Your task to perform on an android device: Open Amazon Image 0: 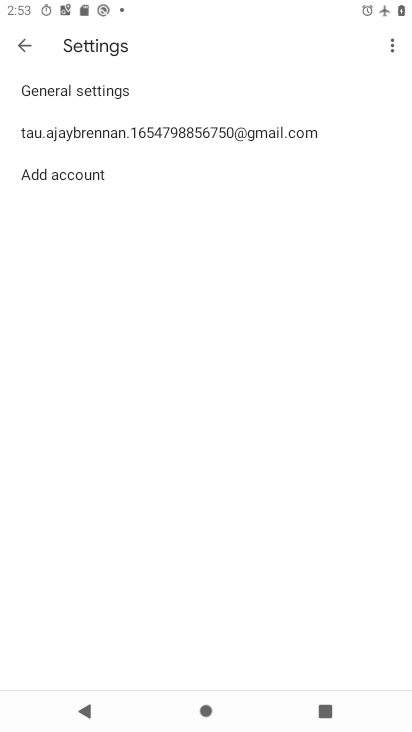
Step 0: press home button
Your task to perform on an android device: Open Amazon Image 1: 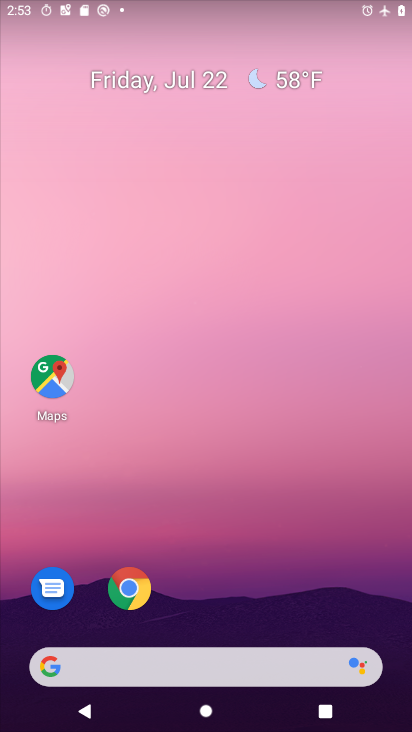
Step 1: drag from (250, 582) to (227, 140)
Your task to perform on an android device: Open Amazon Image 2: 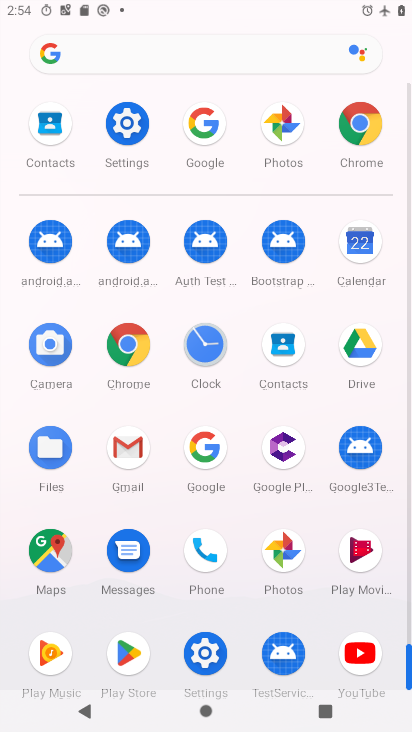
Step 2: click (114, 335)
Your task to perform on an android device: Open Amazon Image 3: 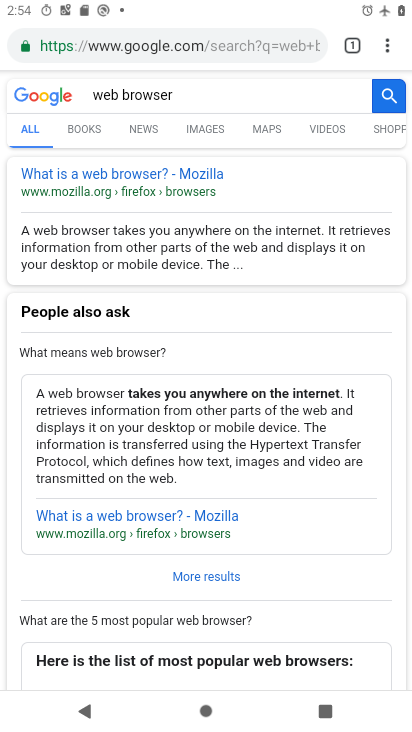
Step 3: drag from (329, 1) to (309, 425)
Your task to perform on an android device: Open Amazon Image 4: 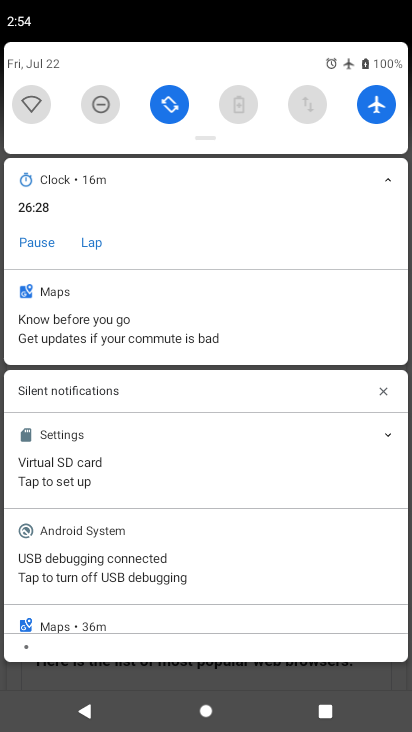
Step 4: drag from (313, 170) to (299, 384)
Your task to perform on an android device: Open Amazon Image 5: 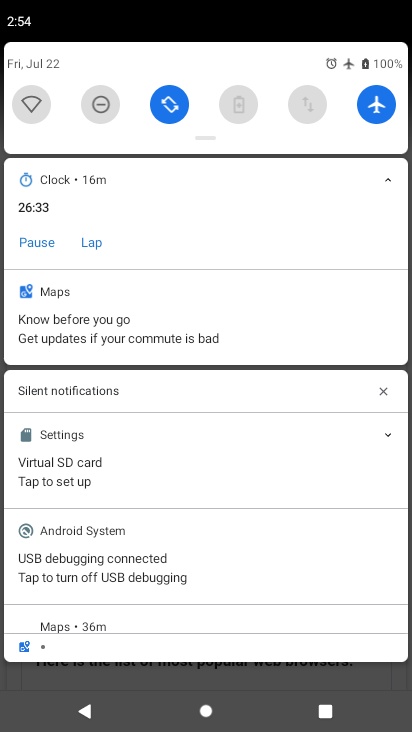
Step 5: click (365, 91)
Your task to perform on an android device: Open Amazon Image 6: 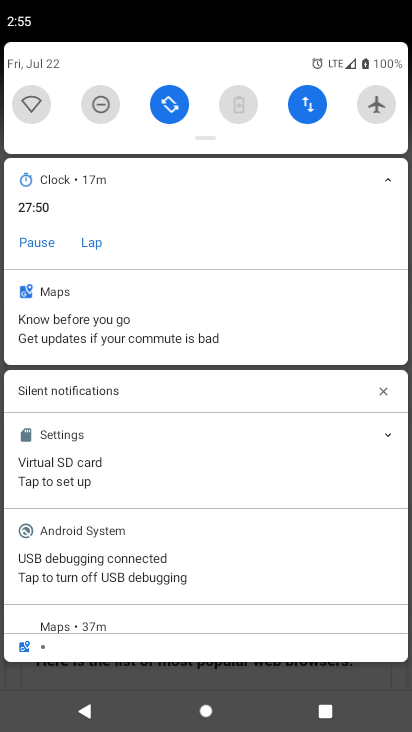
Step 6: click (361, 674)
Your task to perform on an android device: Open Amazon Image 7: 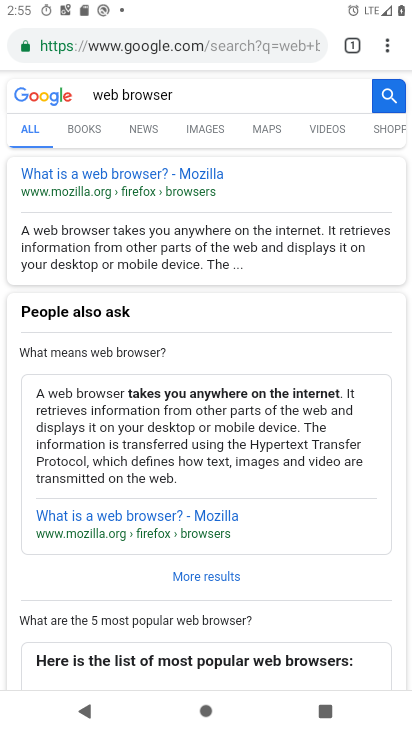
Step 7: drag from (393, 40) to (237, 89)
Your task to perform on an android device: Open Amazon Image 8: 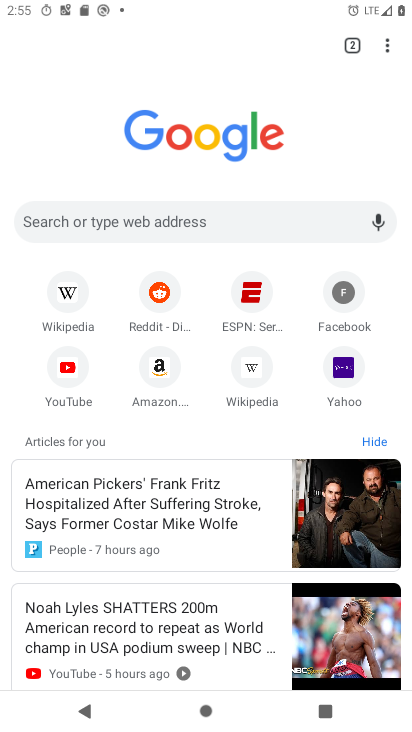
Step 8: click (148, 364)
Your task to perform on an android device: Open Amazon Image 9: 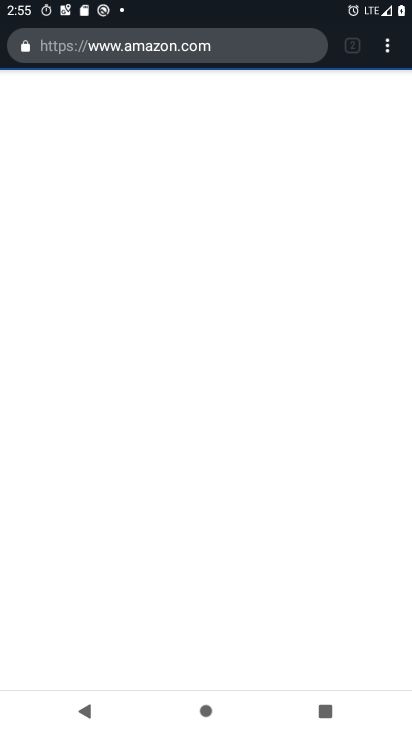
Step 9: task complete